Your task to perform on an android device: Go to CNN.com Image 0: 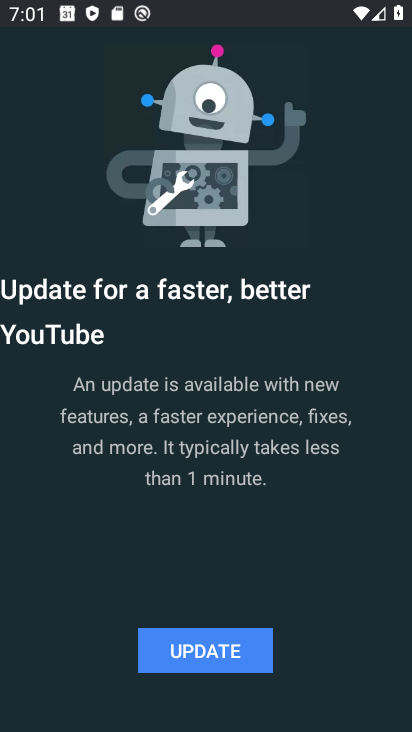
Step 0: press back button
Your task to perform on an android device: Go to CNN.com Image 1: 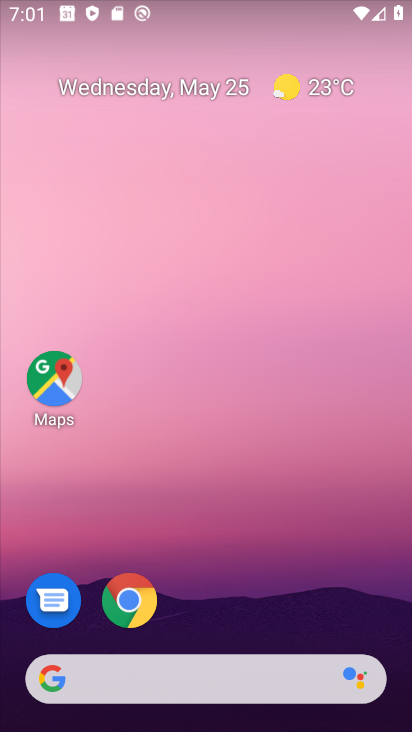
Step 1: click (129, 604)
Your task to perform on an android device: Go to CNN.com Image 2: 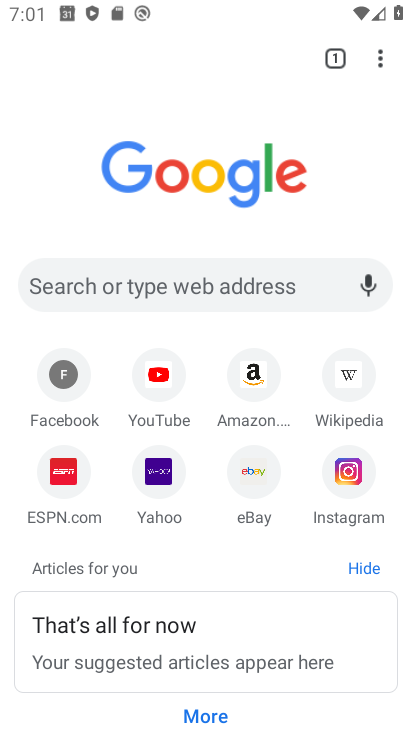
Step 2: click (203, 276)
Your task to perform on an android device: Go to CNN.com Image 3: 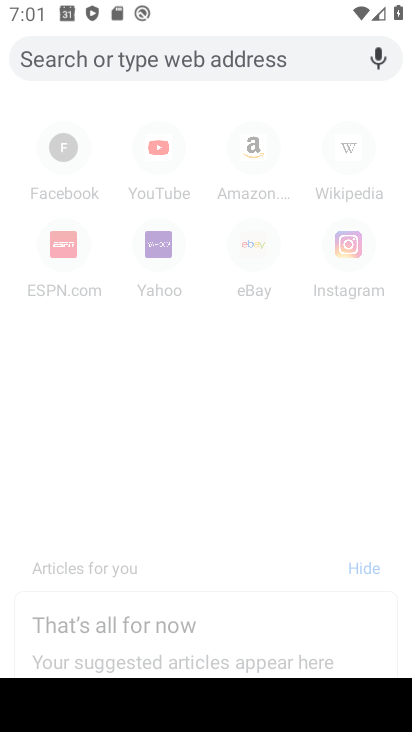
Step 3: type "CNN.com"
Your task to perform on an android device: Go to CNN.com Image 4: 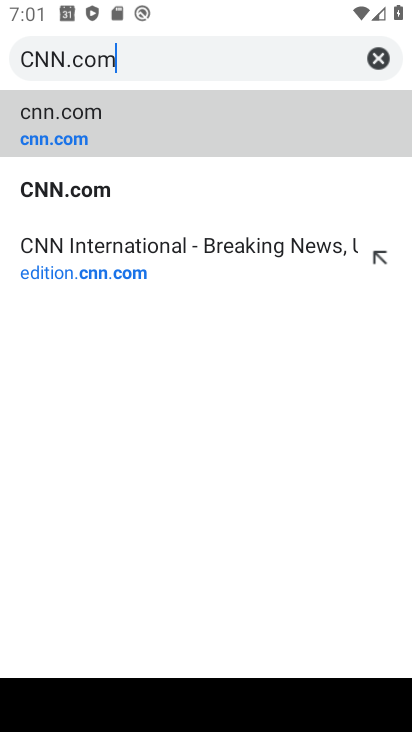
Step 4: click (90, 194)
Your task to perform on an android device: Go to CNN.com Image 5: 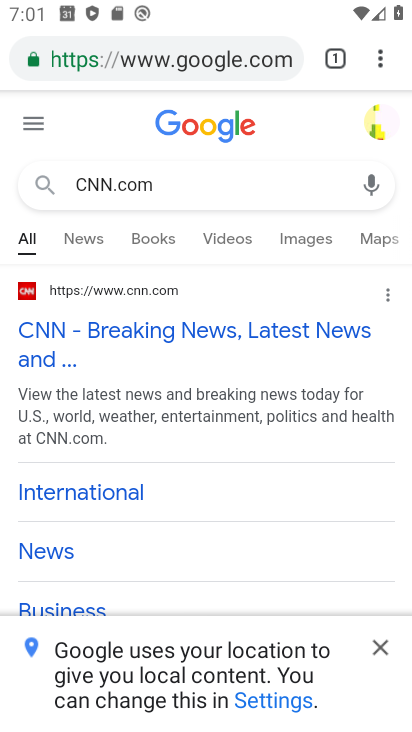
Step 5: click (227, 328)
Your task to perform on an android device: Go to CNN.com Image 6: 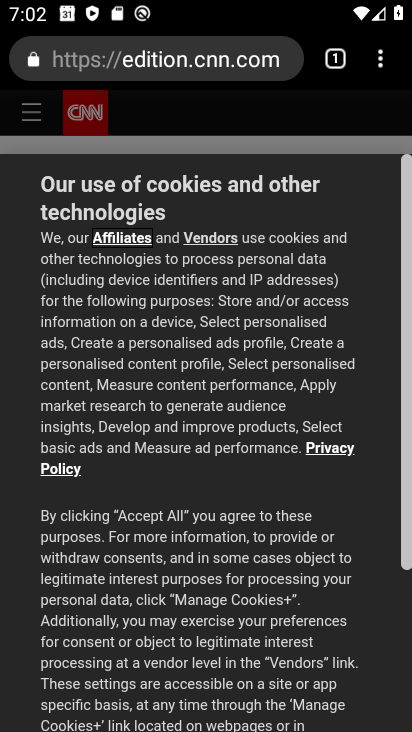
Step 6: task complete